Your task to perform on an android device: find which apps use the phone's location Image 0: 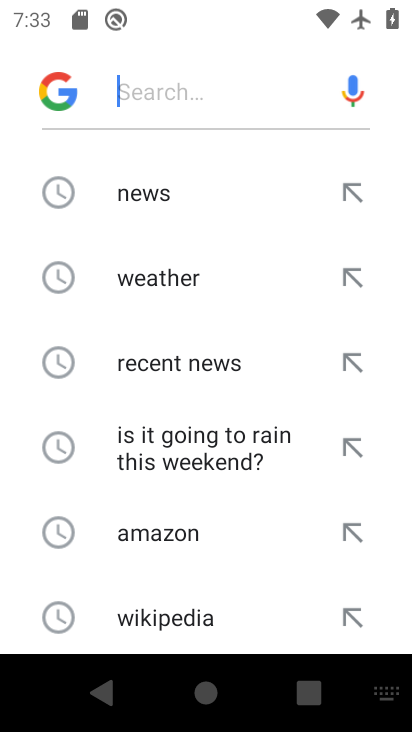
Step 0: press home button
Your task to perform on an android device: find which apps use the phone's location Image 1: 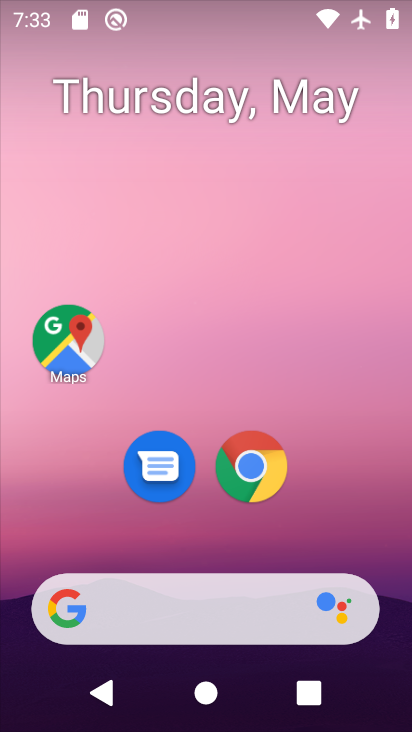
Step 1: drag from (360, 492) to (296, 76)
Your task to perform on an android device: find which apps use the phone's location Image 2: 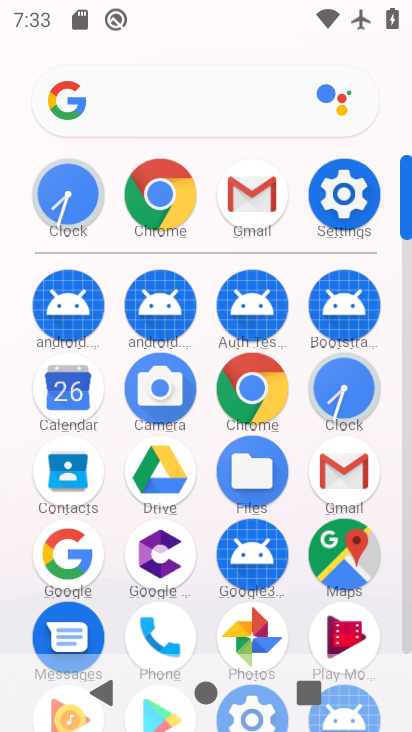
Step 2: click (338, 213)
Your task to perform on an android device: find which apps use the phone's location Image 3: 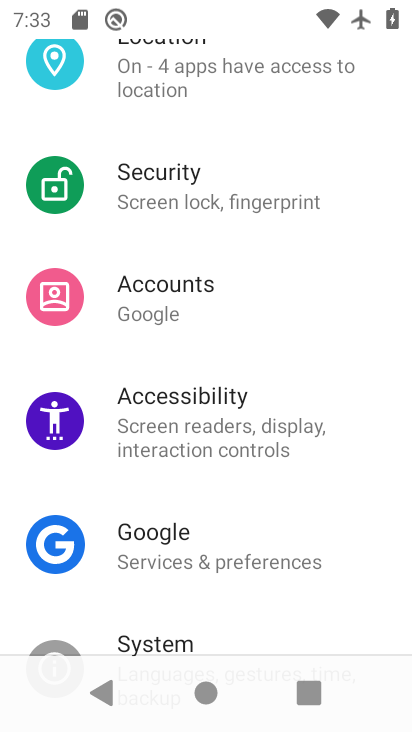
Step 3: drag from (254, 141) to (330, 607)
Your task to perform on an android device: find which apps use the phone's location Image 4: 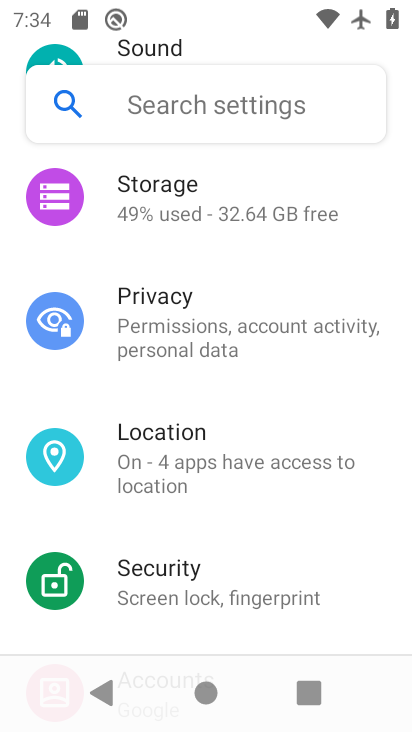
Step 4: drag from (258, 300) to (263, 447)
Your task to perform on an android device: find which apps use the phone's location Image 5: 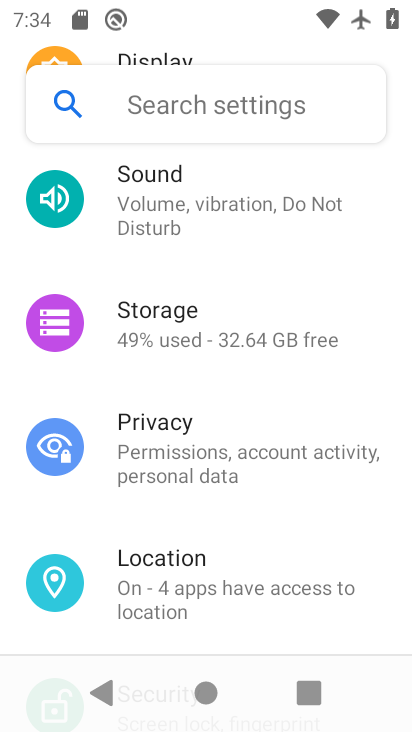
Step 5: click (214, 587)
Your task to perform on an android device: find which apps use the phone's location Image 6: 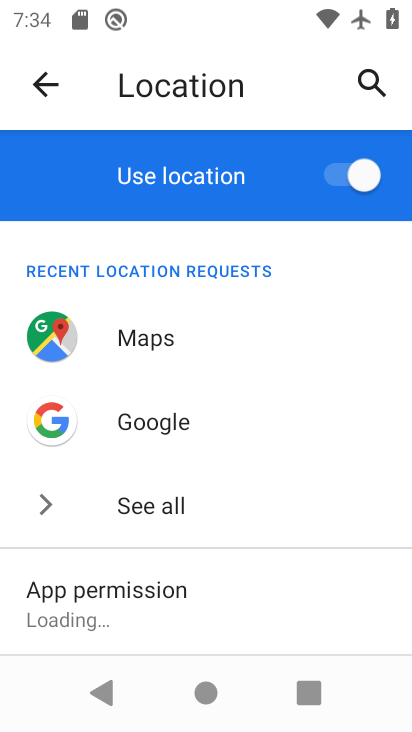
Step 6: click (182, 530)
Your task to perform on an android device: find which apps use the phone's location Image 7: 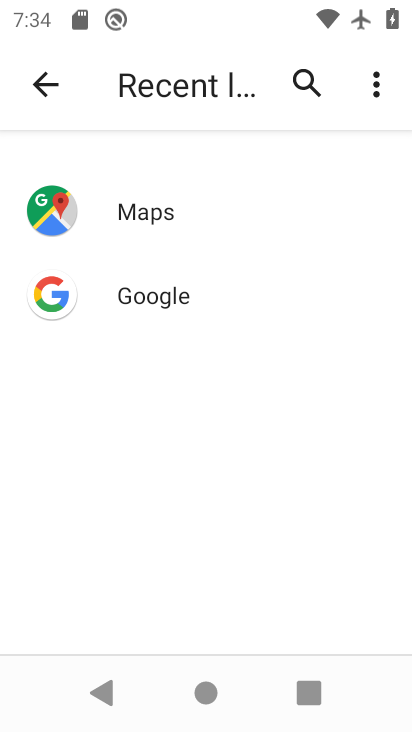
Step 7: task complete